Your task to perform on an android device: turn off priority inbox in the gmail app Image 0: 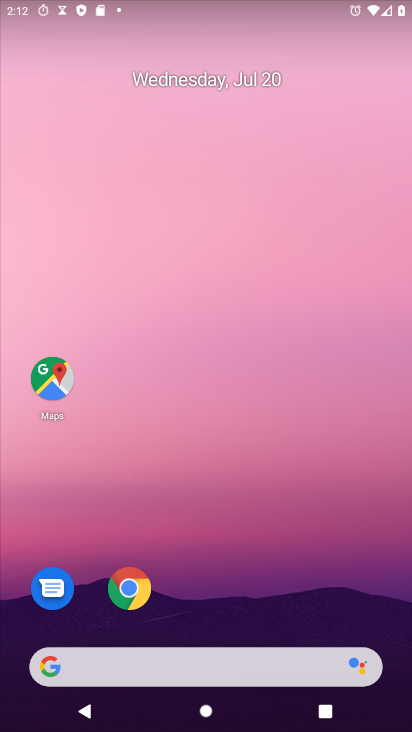
Step 0: drag from (202, 669) to (296, 8)
Your task to perform on an android device: turn off priority inbox in the gmail app Image 1: 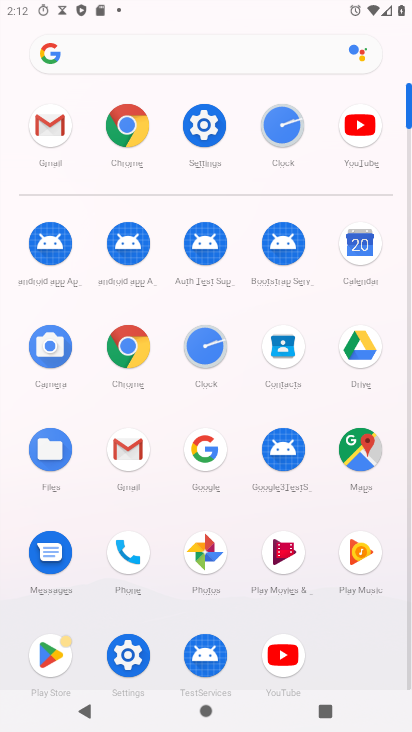
Step 1: click (121, 442)
Your task to perform on an android device: turn off priority inbox in the gmail app Image 2: 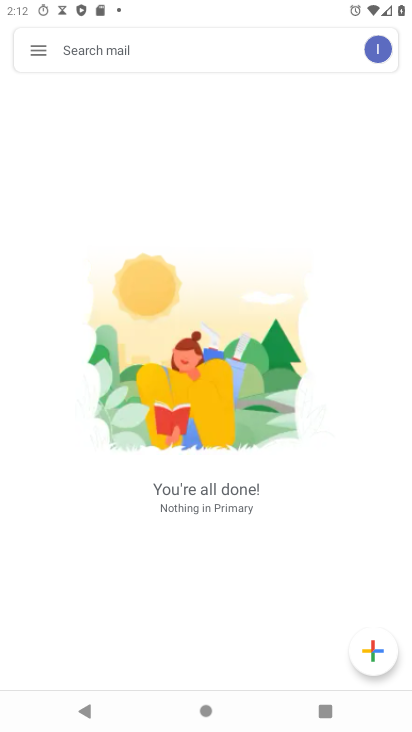
Step 2: click (32, 47)
Your task to perform on an android device: turn off priority inbox in the gmail app Image 3: 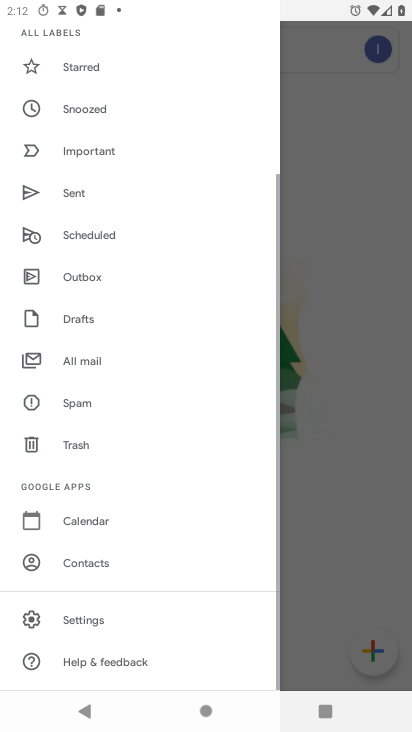
Step 3: click (88, 612)
Your task to perform on an android device: turn off priority inbox in the gmail app Image 4: 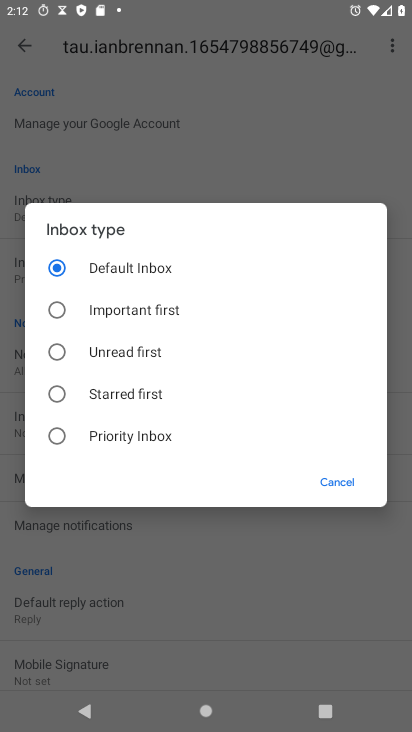
Step 4: task complete